Your task to perform on an android device: See recent photos Image 0: 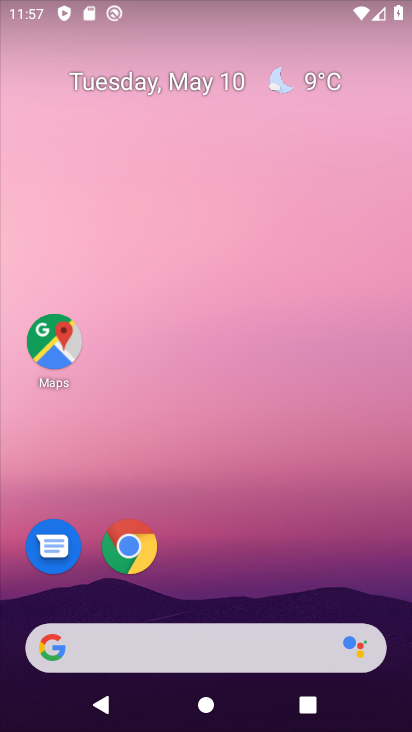
Step 0: drag from (135, 652) to (291, 212)
Your task to perform on an android device: See recent photos Image 1: 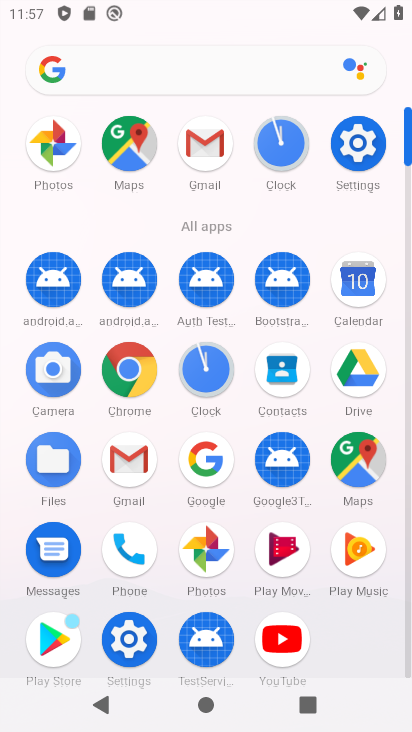
Step 1: click (197, 558)
Your task to perform on an android device: See recent photos Image 2: 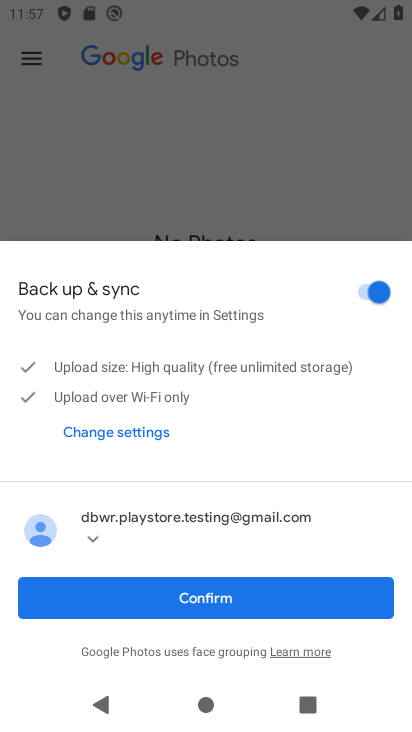
Step 2: click (212, 601)
Your task to perform on an android device: See recent photos Image 3: 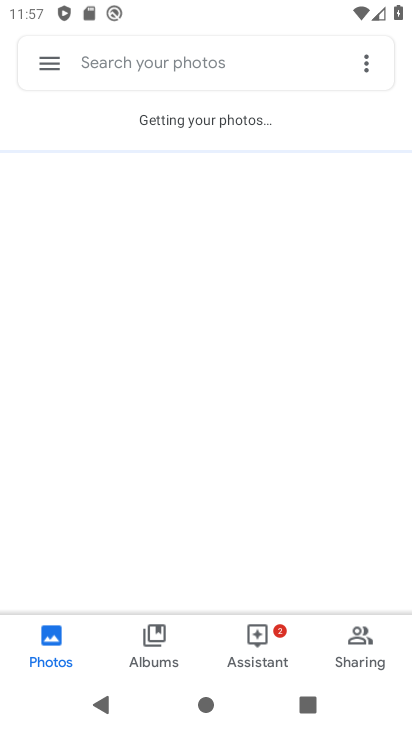
Step 3: click (159, 640)
Your task to perform on an android device: See recent photos Image 4: 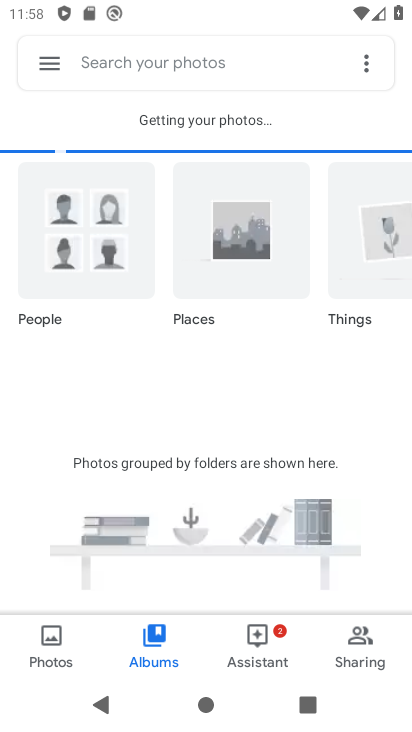
Step 4: task complete